Your task to perform on an android device: Open Google Image 0: 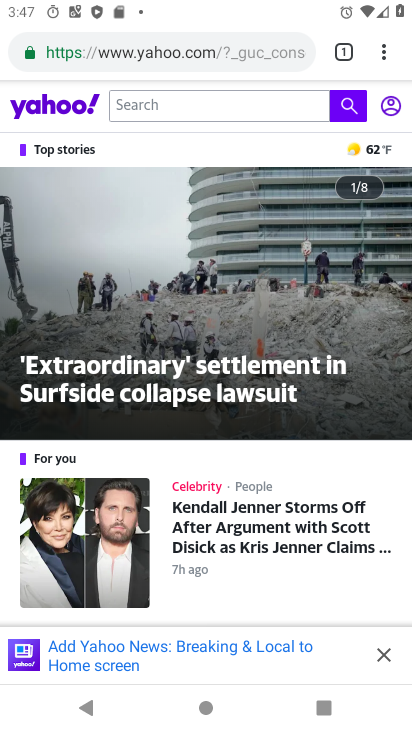
Step 0: press home button
Your task to perform on an android device: Open Google Image 1: 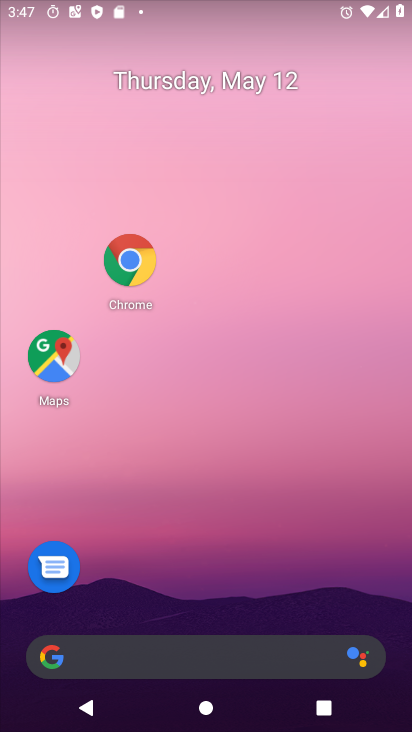
Step 1: drag from (160, 598) to (253, 243)
Your task to perform on an android device: Open Google Image 2: 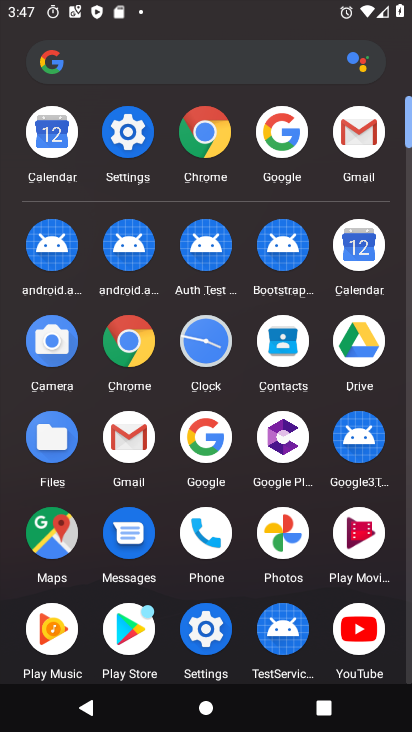
Step 2: click (208, 441)
Your task to perform on an android device: Open Google Image 3: 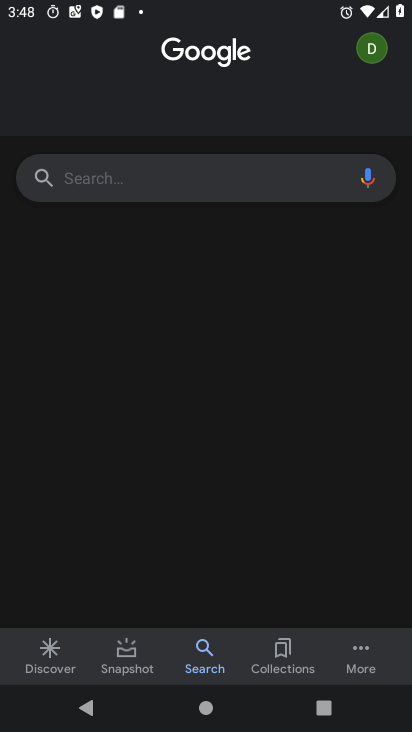
Step 3: task complete